Your task to perform on an android device: install app "YouTube Kids" Image 0: 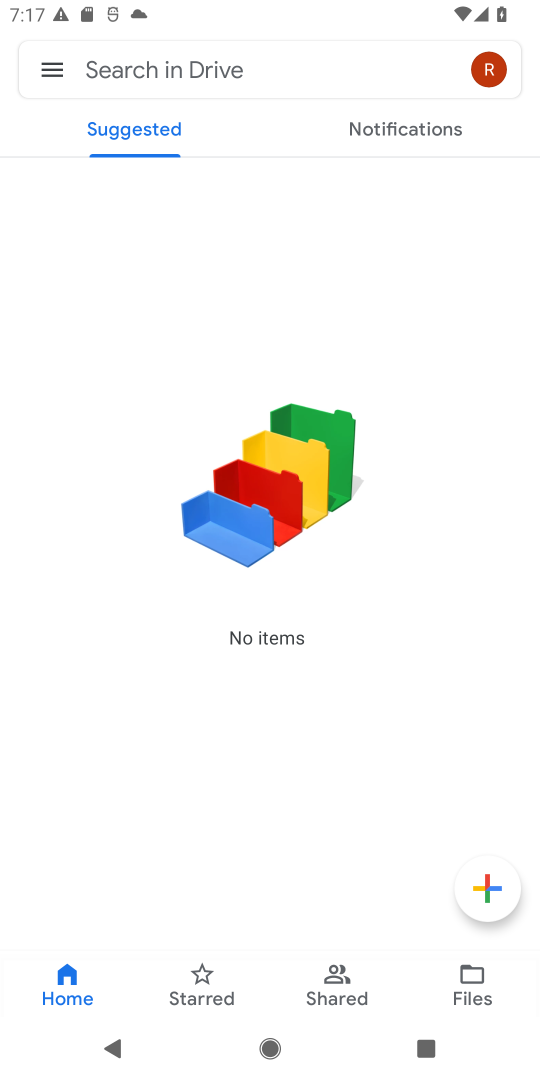
Step 0: press home button
Your task to perform on an android device: install app "YouTube Kids" Image 1: 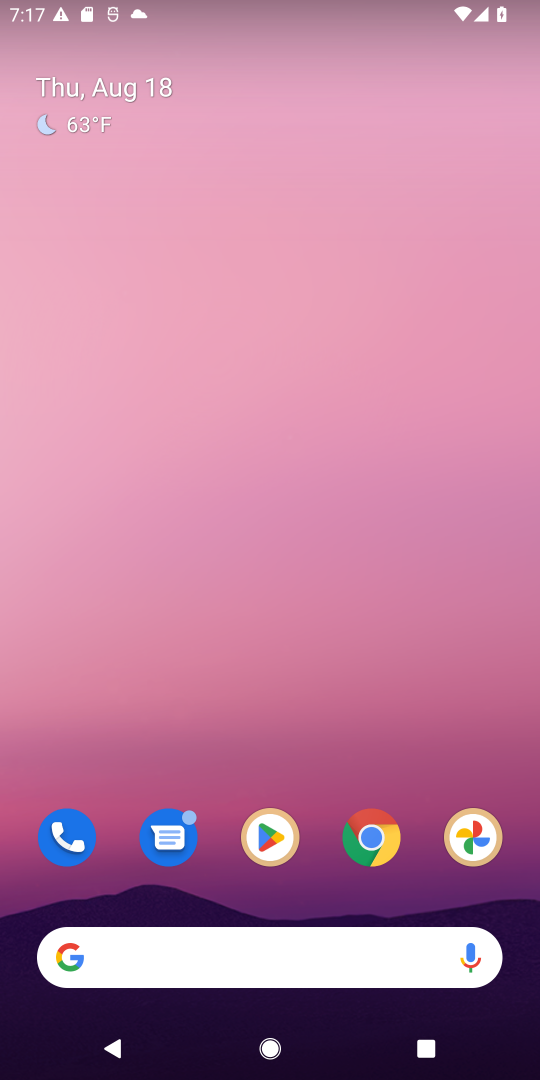
Step 1: click (277, 849)
Your task to perform on an android device: install app "YouTube Kids" Image 2: 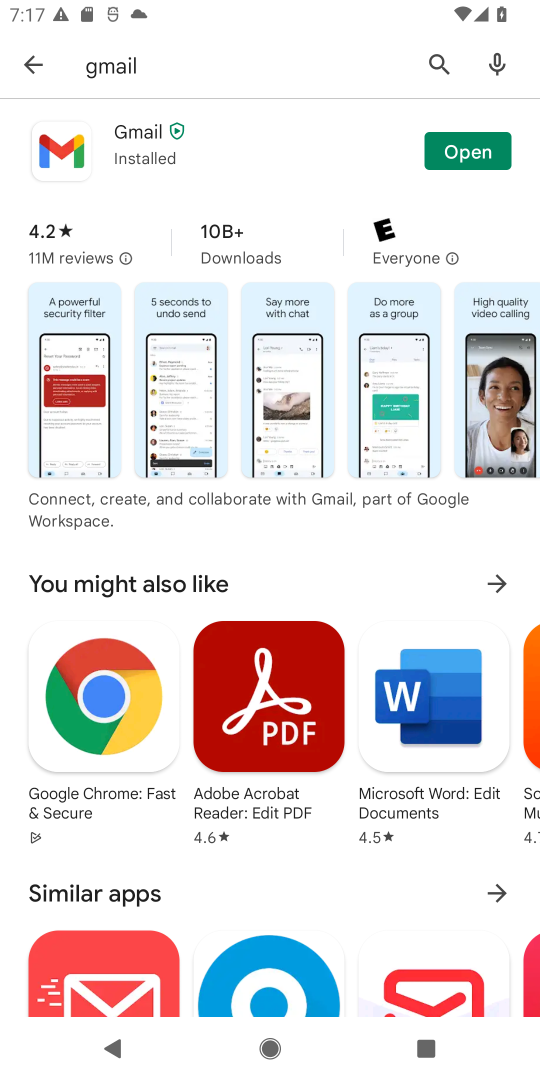
Step 2: click (172, 74)
Your task to perform on an android device: install app "YouTube Kids" Image 3: 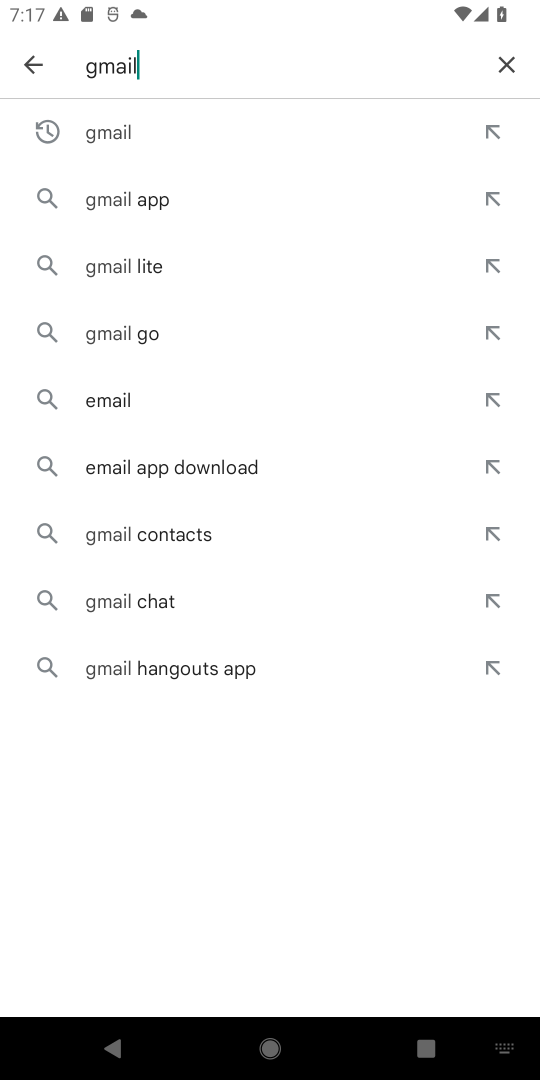
Step 3: click (513, 61)
Your task to perform on an android device: install app "YouTube Kids" Image 4: 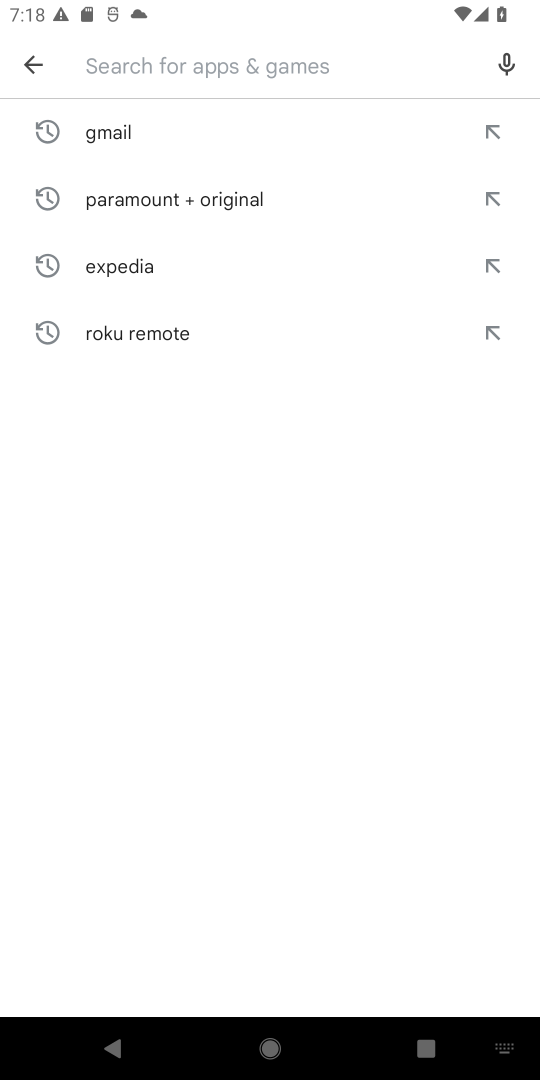
Step 4: type "youtube"
Your task to perform on an android device: install app "YouTube Kids" Image 5: 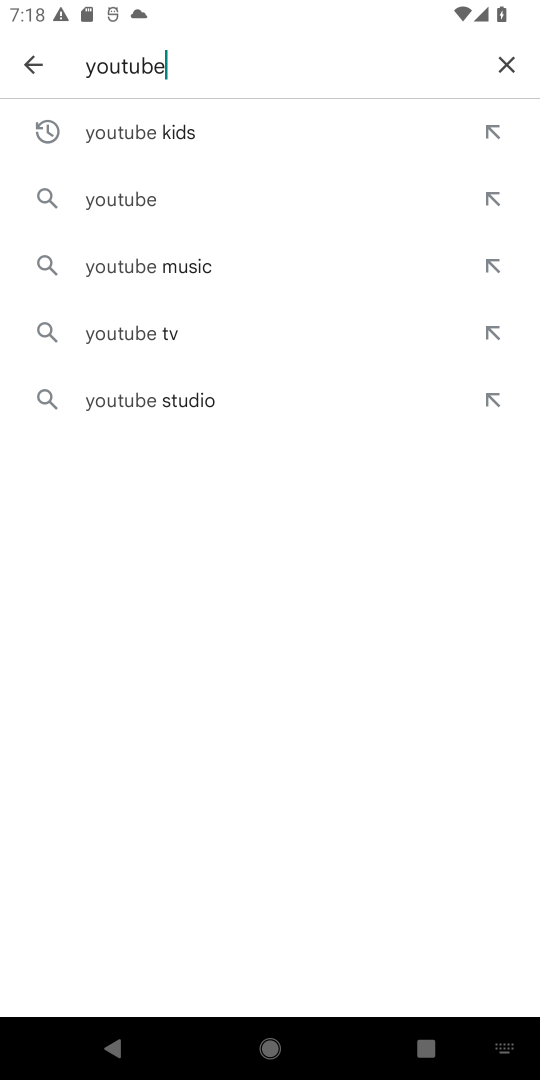
Step 5: type "kide"
Your task to perform on an android device: install app "YouTube Kids" Image 6: 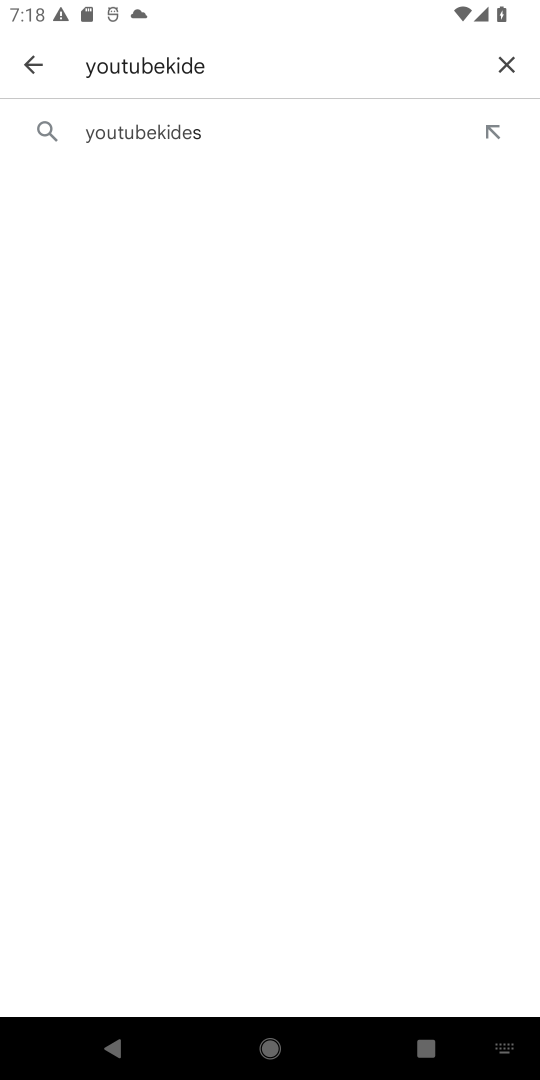
Step 6: click (139, 148)
Your task to perform on an android device: install app "YouTube Kids" Image 7: 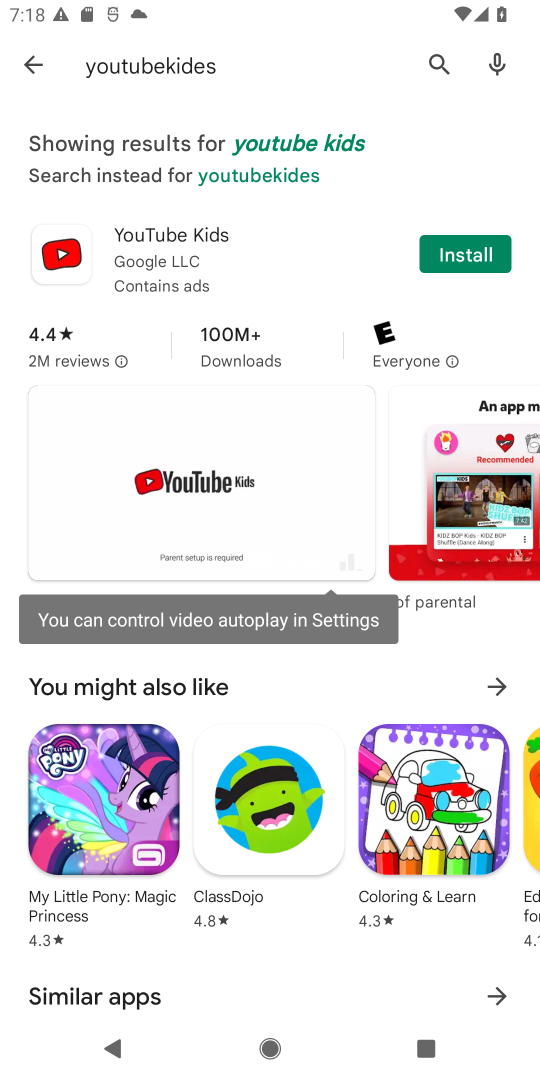
Step 7: click (473, 260)
Your task to perform on an android device: install app "YouTube Kids" Image 8: 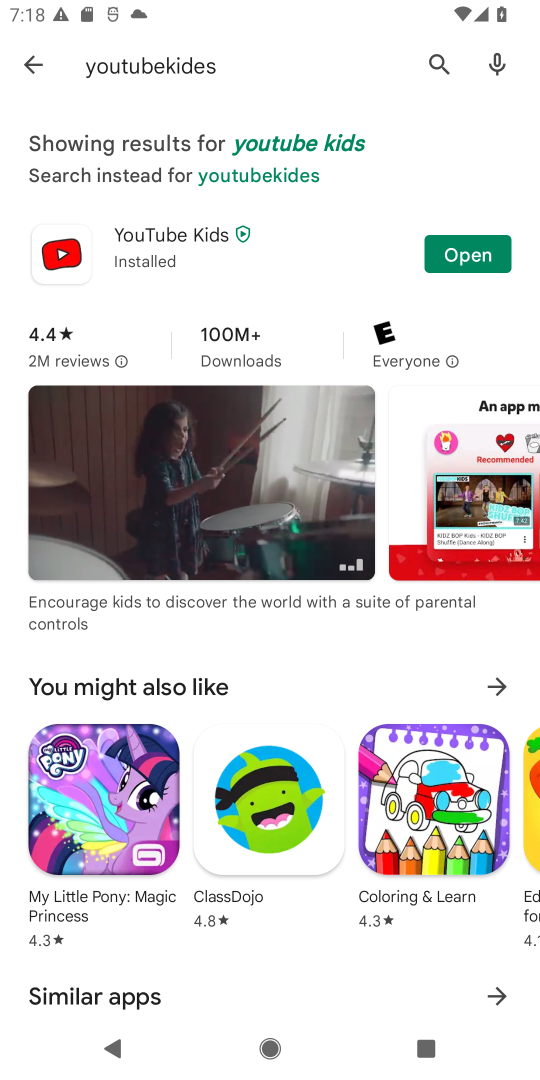
Step 8: task complete